Your task to perform on an android device: turn on location history Image 0: 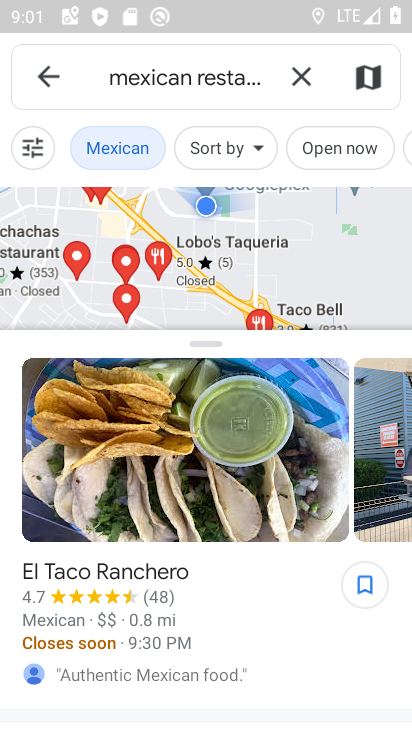
Step 0: click (55, 68)
Your task to perform on an android device: turn on location history Image 1: 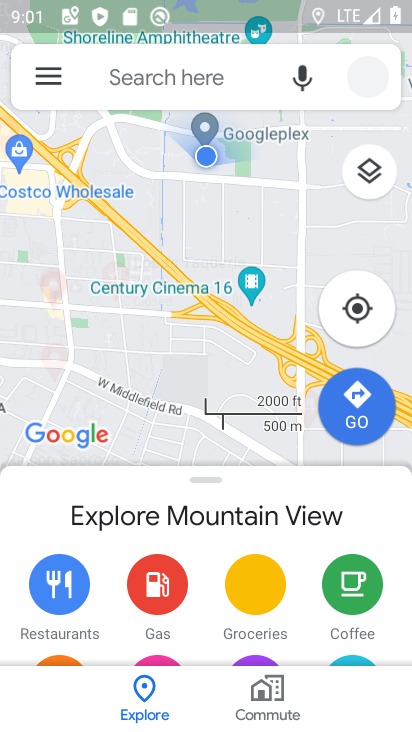
Step 1: click (55, 68)
Your task to perform on an android device: turn on location history Image 2: 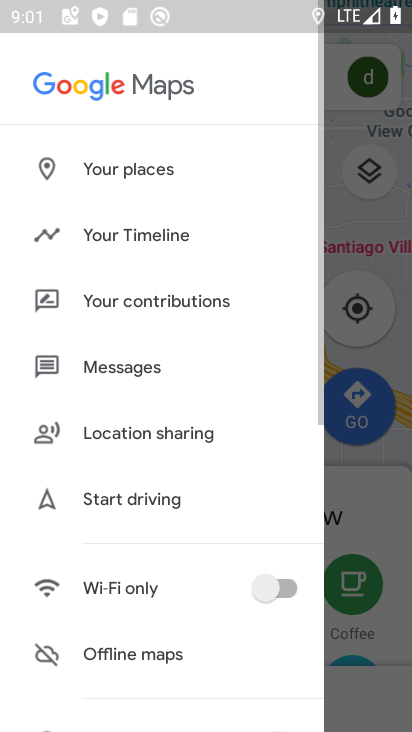
Step 2: click (161, 236)
Your task to perform on an android device: turn on location history Image 3: 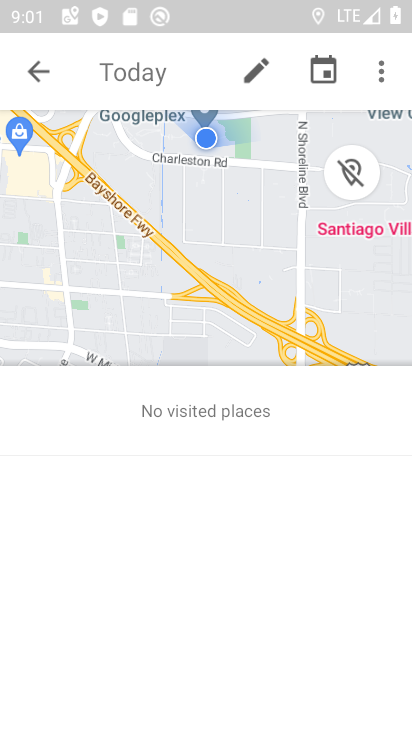
Step 3: click (379, 66)
Your task to perform on an android device: turn on location history Image 4: 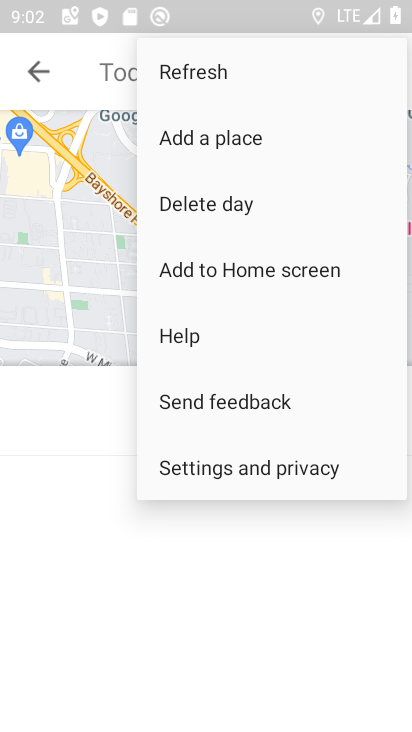
Step 4: click (175, 458)
Your task to perform on an android device: turn on location history Image 5: 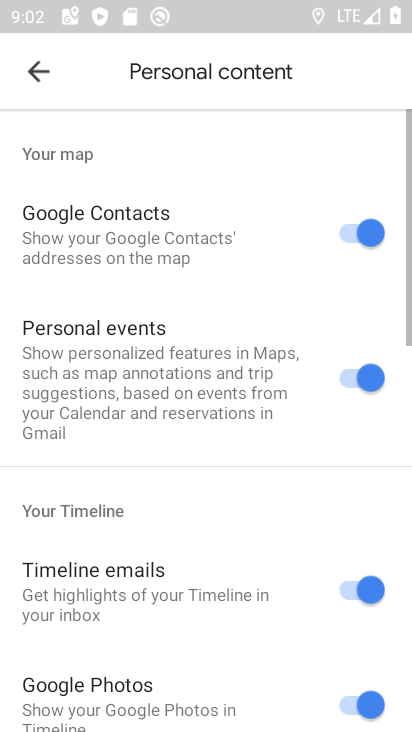
Step 5: drag from (257, 688) to (343, 0)
Your task to perform on an android device: turn on location history Image 6: 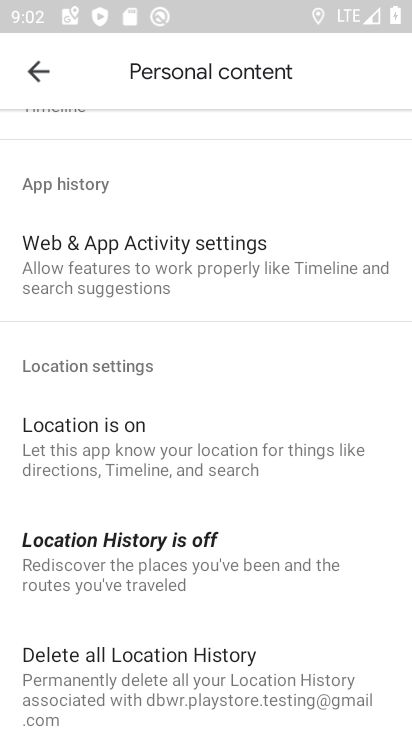
Step 6: click (76, 571)
Your task to perform on an android device: turn on location history Image 7: 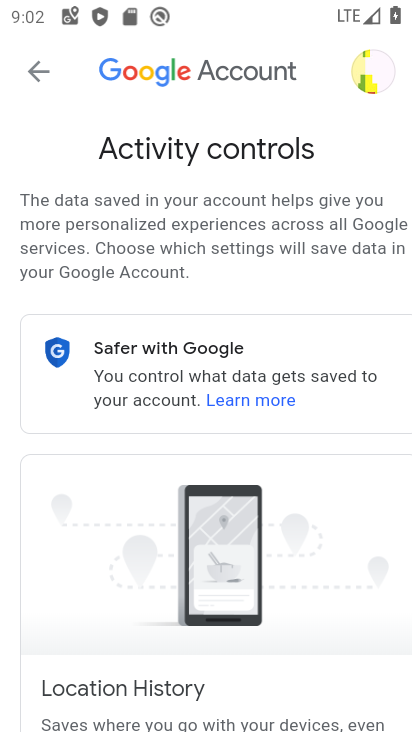
Step 7: drag from (392, 715) to (254, 116)
Your task to perform on an android device: turn on location history Image 8: 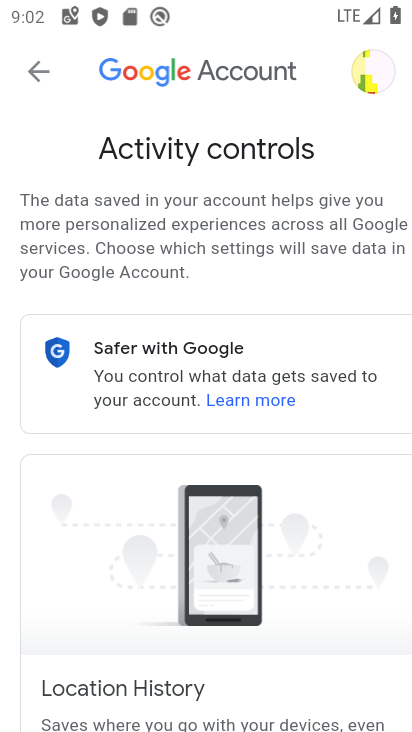
Step 8: drag from (357, 660) to (115, 106)
Your task to perform on an android device: turn on location history Image 9: 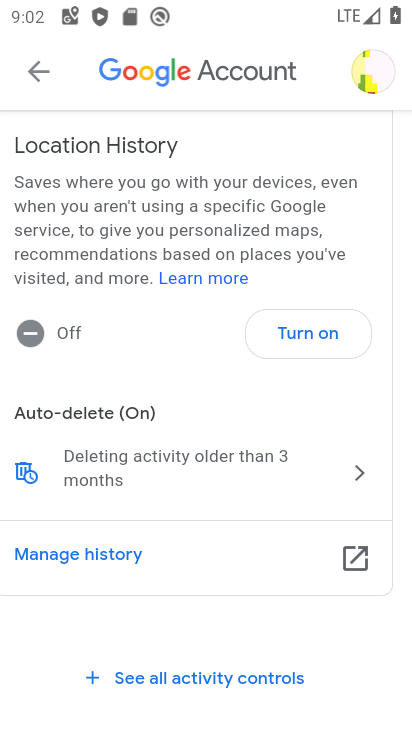
Step 9: click (289, 344)
Your task to perform on an android device: turn on location history Image 10: 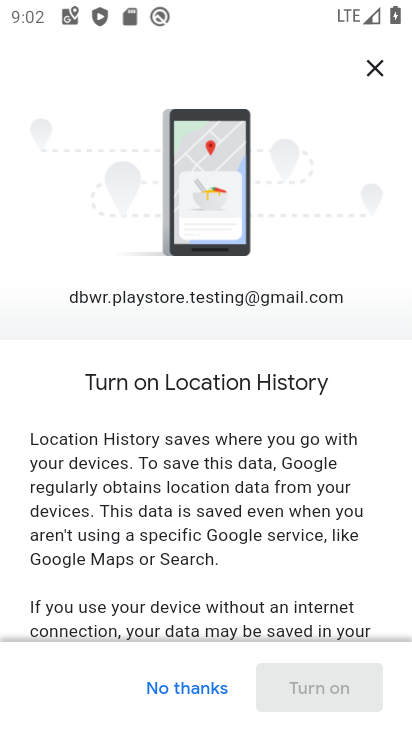
Step 10: drag from (298, 596) to (251, 74)
Your task to perform on an android device: turn on location history Image 11: 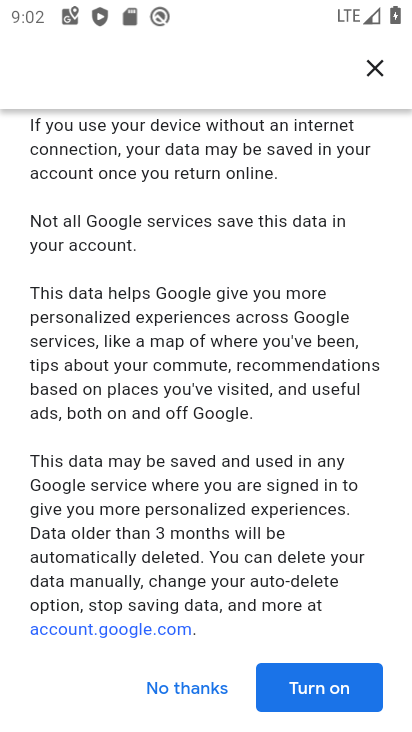
Step 11: drag from (209, 559) to (330, 26)
Your task to perform on an android device: turn on location history Image 12: 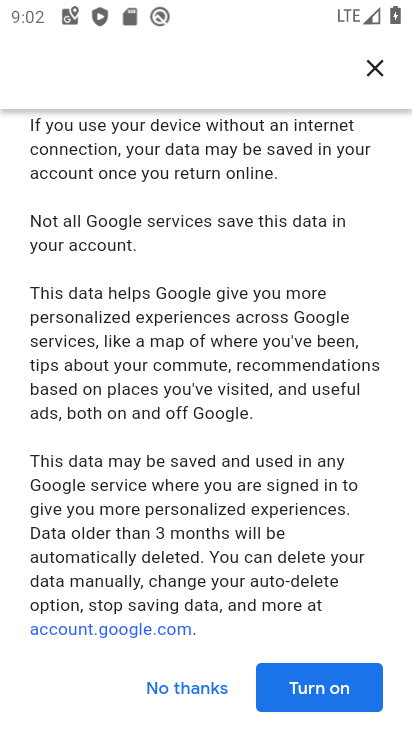
Step 12: drag from (318, 680) to (355, 684)
Your task to perform on an android device: turn on location history Image 13: 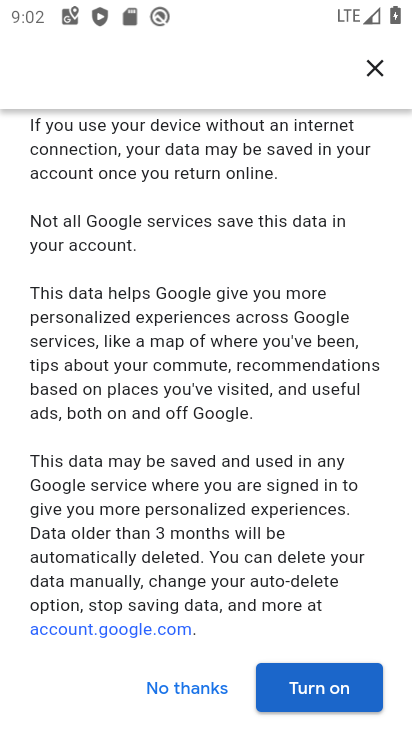
Step 13: click (312, 689)
Your task to perform on an android device: turn on location history Image 14: 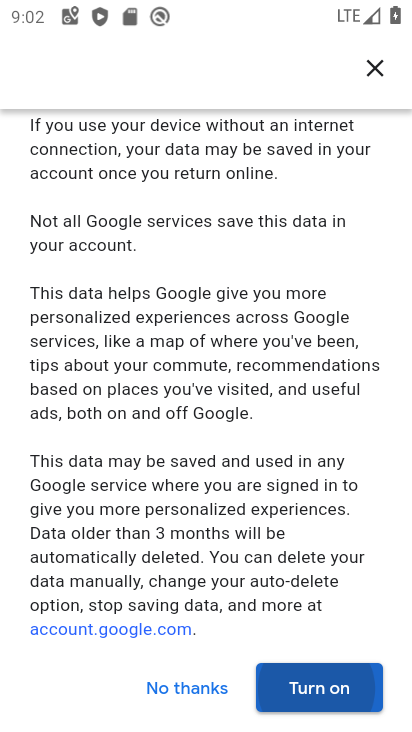
Step 14: click (312, 689)
Your task to perform on an android device: turn on location history Image 15: 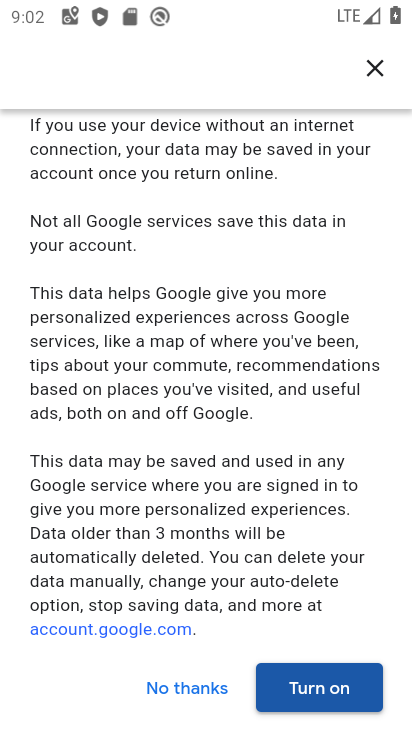
Step 15: click (312, 689)
Your task to perform on an android device: turn on location history Image 16: 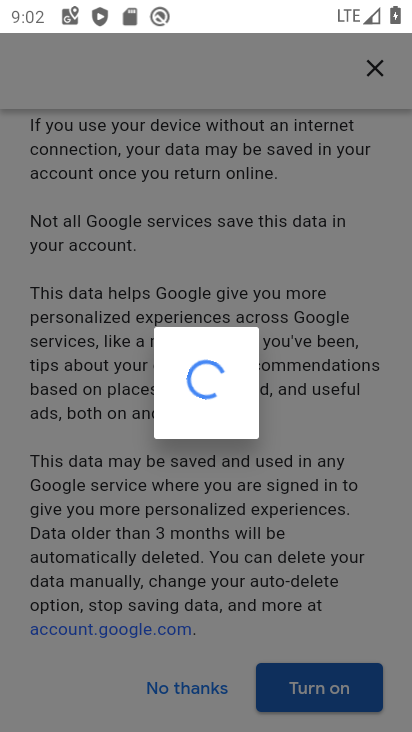
Step 16: click (312, 689)
Your task to perform on an android device: turn on location history Image 17: 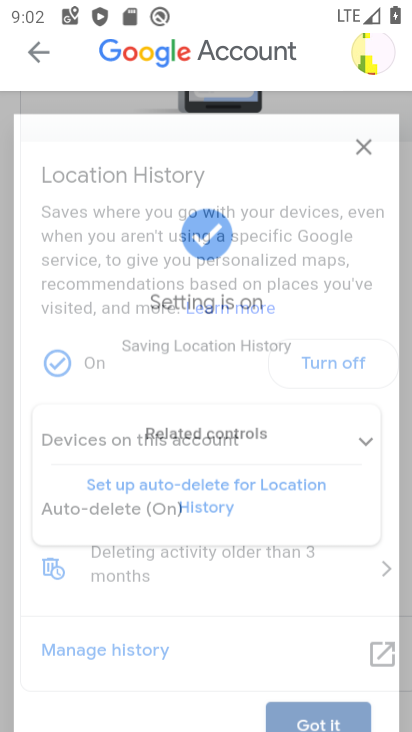
Step 17: click (312, 689)
Your task to perform on an android device: turn on location history Image 18: 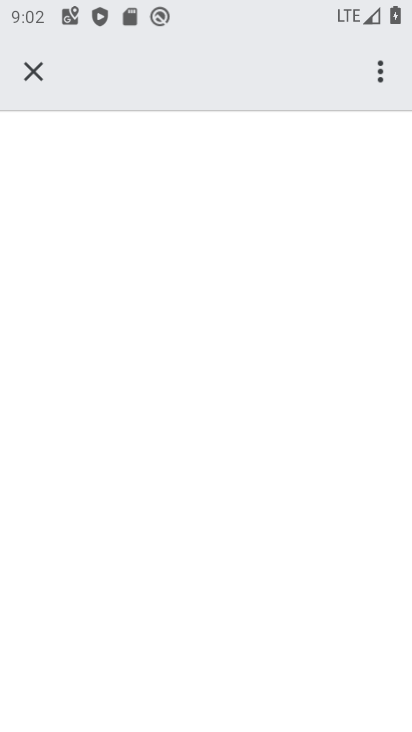
Step 18: task complete